Your task to perform on an android device: Go to battery settings Image 0: 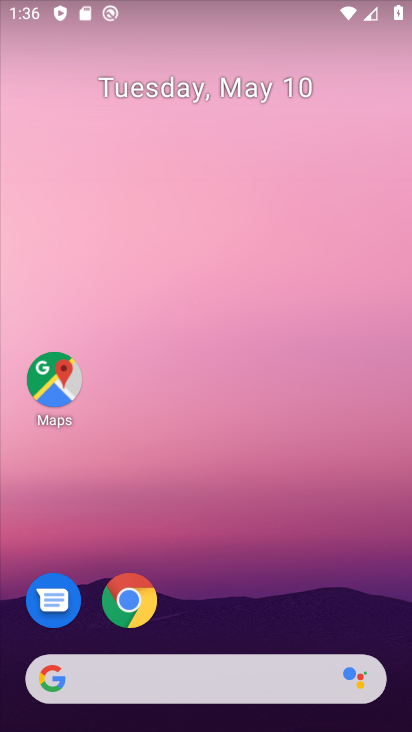
Step 0: drag from (222, 655) to (229, 188)
Your task to perform on an android device: Go to battery settings Image 1: 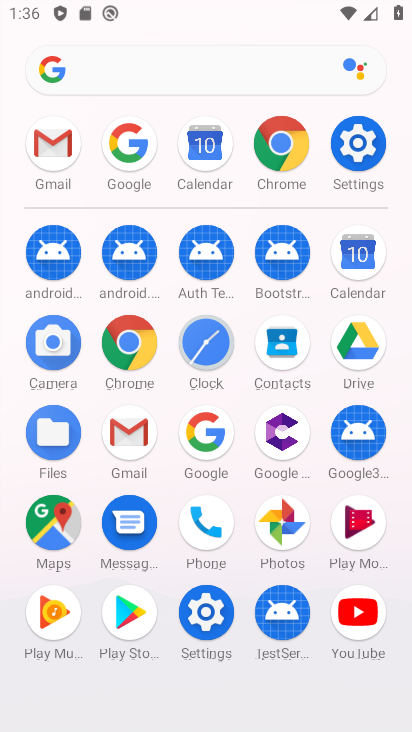
Step 1: drag from (269, 437) to (269, 260)
Your task to perform on an android device: Go to battery settings Image 2: 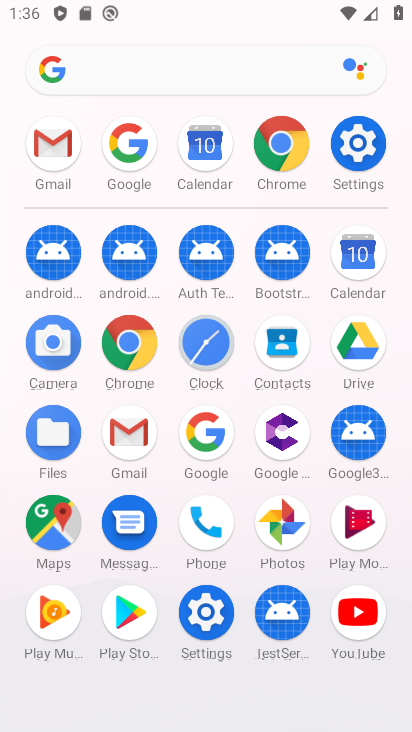
Step 2: click (199, 630)
Your task to perform on an android device: Go to battery settings Image 3: 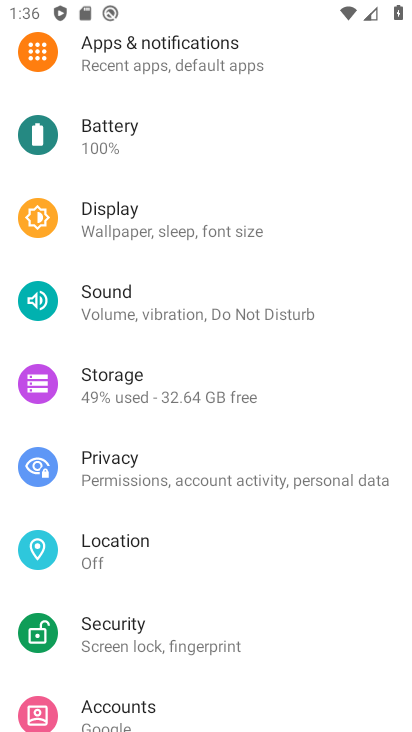
Step 3: click (183, 146)
Your task to perform on an android device: Go to battery settings Image 4: 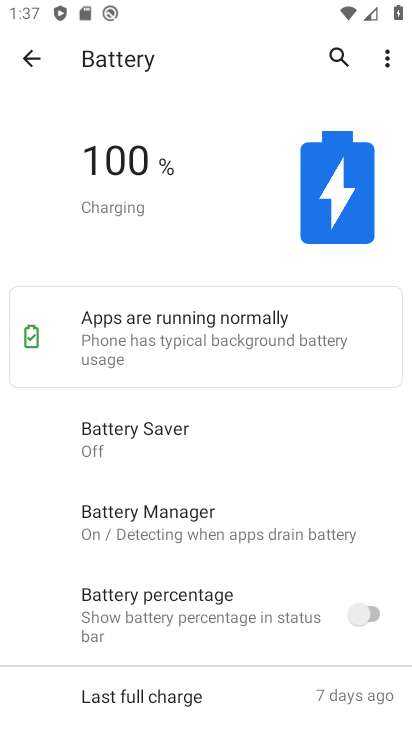
Step 4: task complete